Your task to perform on an android device: turn off airplane mode Image 0: 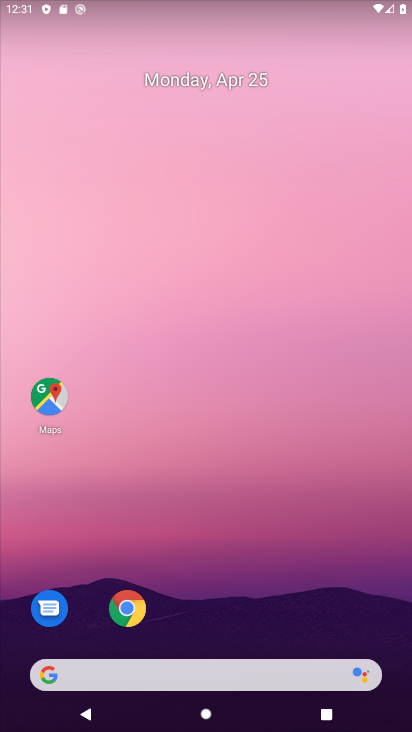
Step 0: drag from (226, 619) to (214, 59)
Your task to perform on an android device: turn off airplane mode Image 1: 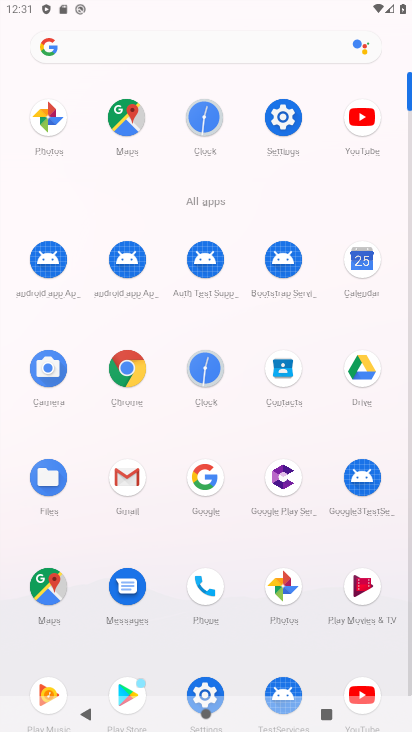
Step 1: click (281, 118)
Your task to perform on an android device: turn off airplane mode Image 2: 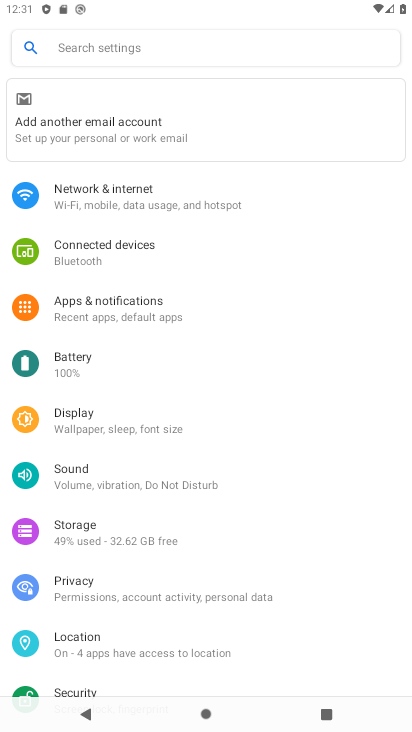
Step 2: click (240, 194)
Your task to perform on an android device: turn off airplane mode Image 3: 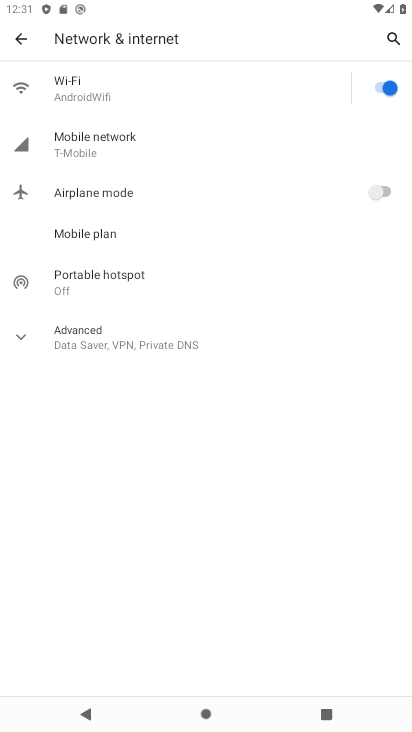
Step 3: task complete